Your task to perform on an android device: choose inbox layout in the gmail app Image 0: 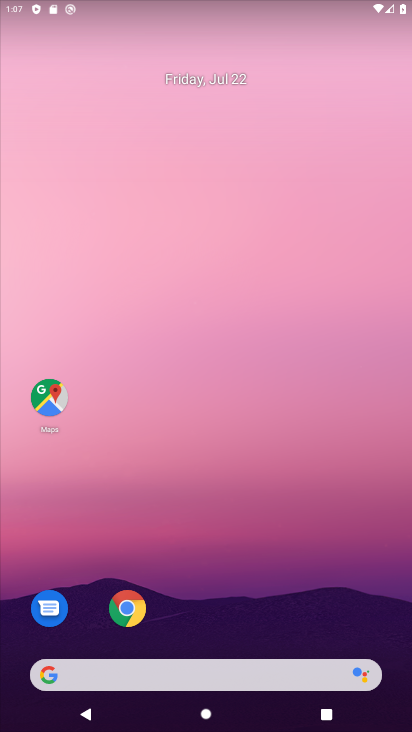
Step 0: drag from (397, 701) to (322, 78)
Your task to perform on an android device: choose inbox layout in the gmail app Image 1: 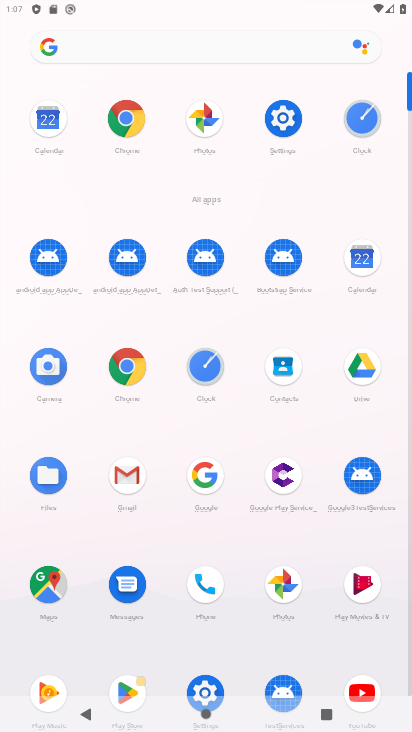
Step 1: click (125, 473)
Your task to perform on an android device: choose inbox layout in the gmail app Image 2: 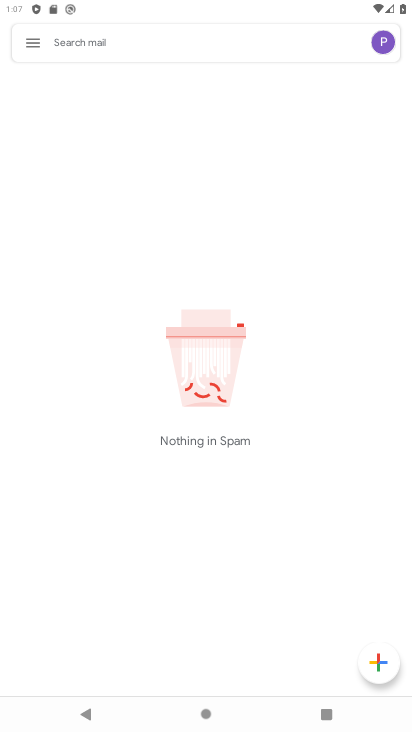
Step 2: click (29, 44)
Your task to perform on an android device: choose inbox layout in the gmail app Image 3: 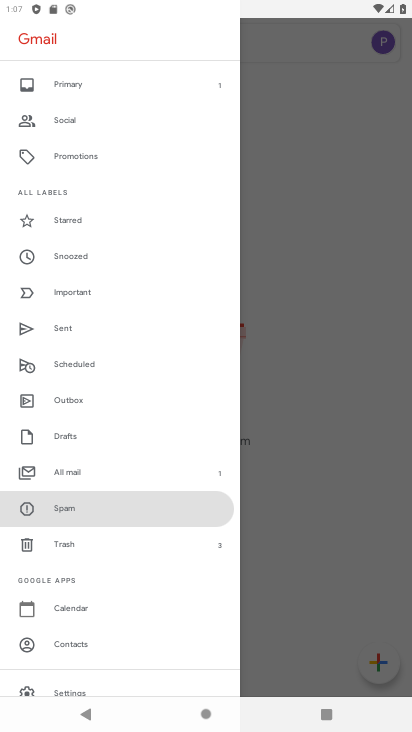
Step 3: click (65, 686)
Your task to perform on an android device: choose inbox layout in the gmail app Image 4: 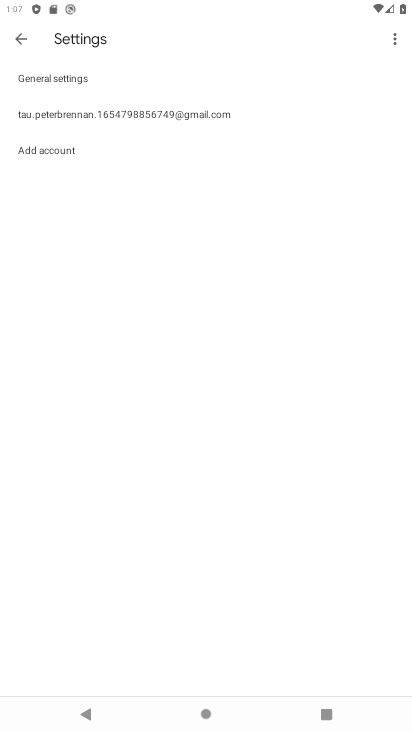
Step 4: click (101, 111)
Your task to perform on an android device: choose inbox layout in the gmail app Image 5: 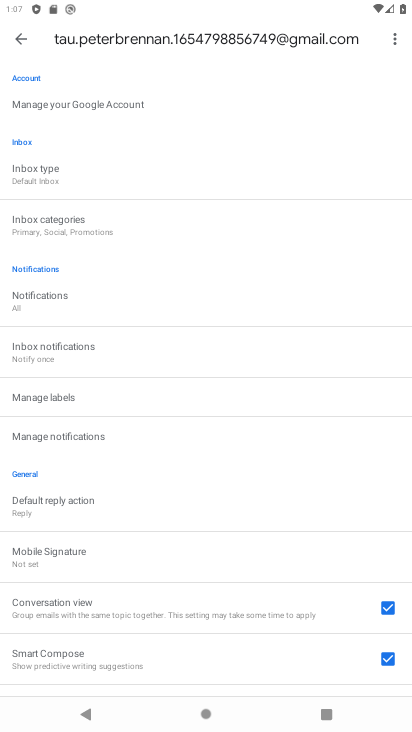
Step 5: click (40, 166)
Your task to perform on an android device: choose inbox layout in the gmail app Image 6: 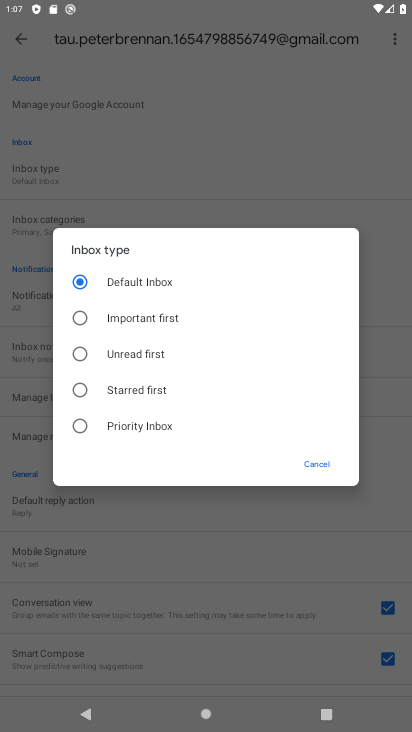
Step 6: click (83, 318)
Your task to perform on an android device: choose inbox layout in the gmail app Image 7: 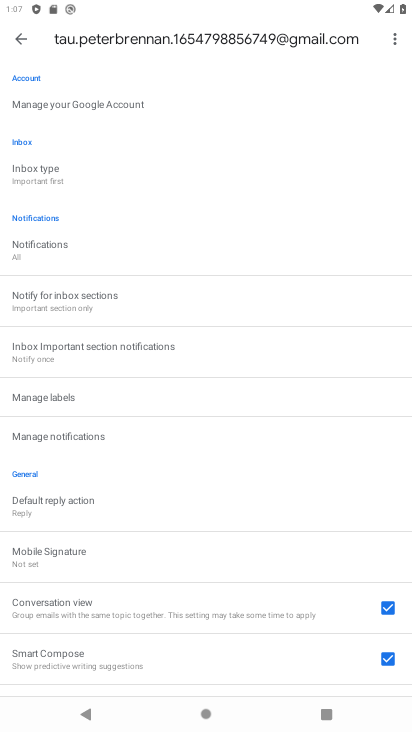
Step 7: task complete